Your task to perform on an android device: Do I have any events this weekend? Image 0: 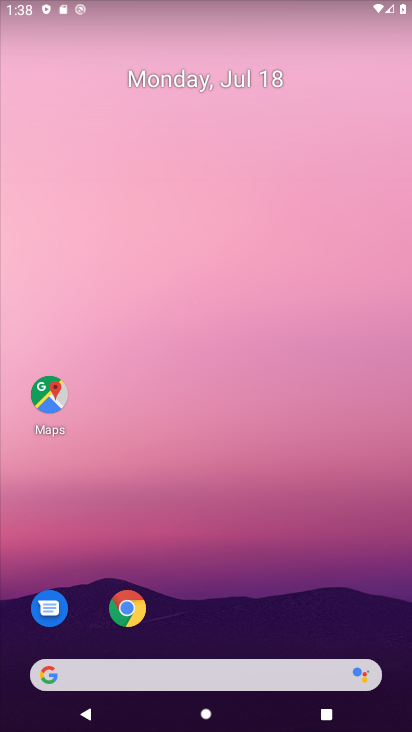
Step 0: drag from (213, 675) to (163, 104)
Your task to perform on an android device: Do I have any events this weekend? Image 1: 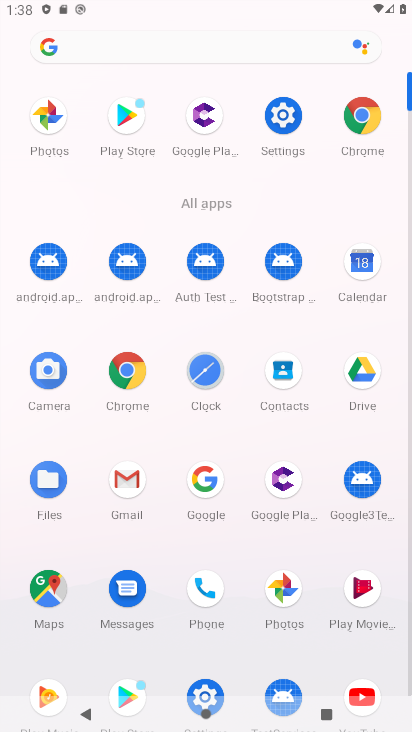
Step 1: click (347, 270)
Your task to perform on an android device: Do I have any events this weekend? Image 2: 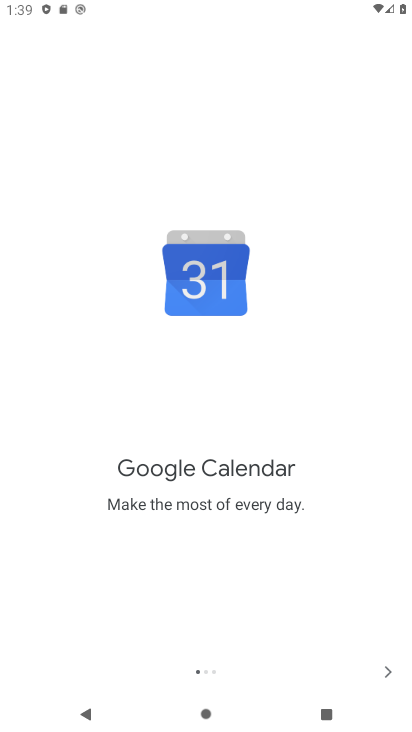
Step 2: click (384, 671)
Your task to perform on an android device: Do I have any events this weekend? Image 3: 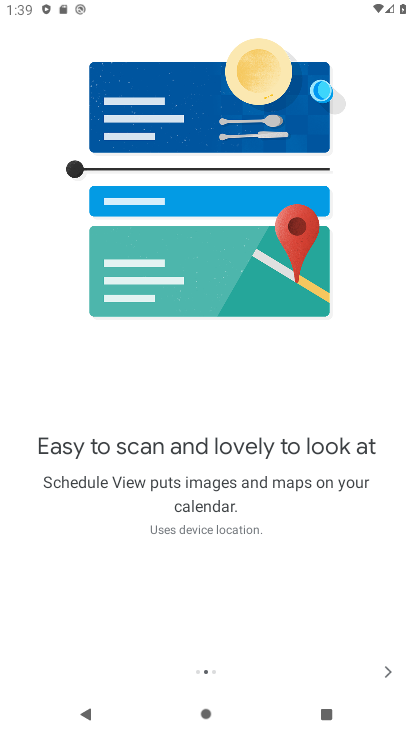
Step 3: click (384, 671)
Your task to perform on an android device: Do I have any events this weekend? Image 4: 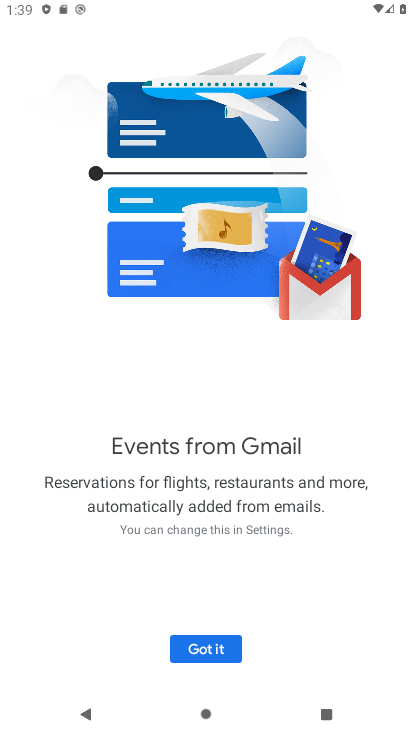
Step 4: click (224, 652)
Your task to perform on an android device: Do I have any events this weekend? Image 5: 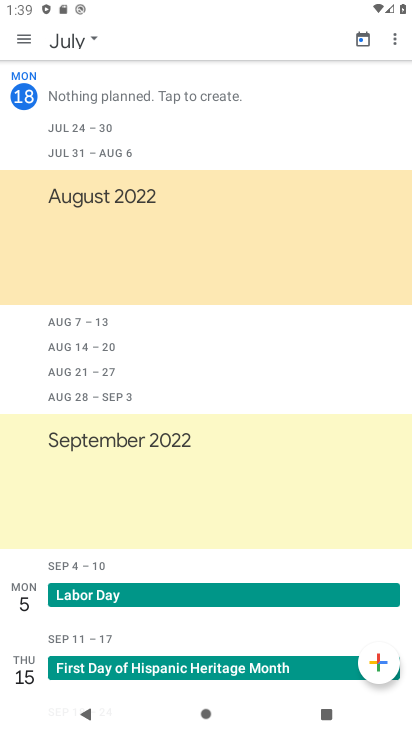
Step 5: click (29, 45)
Your task to perform on an android device: Do I have any events this weekend? Image 6: 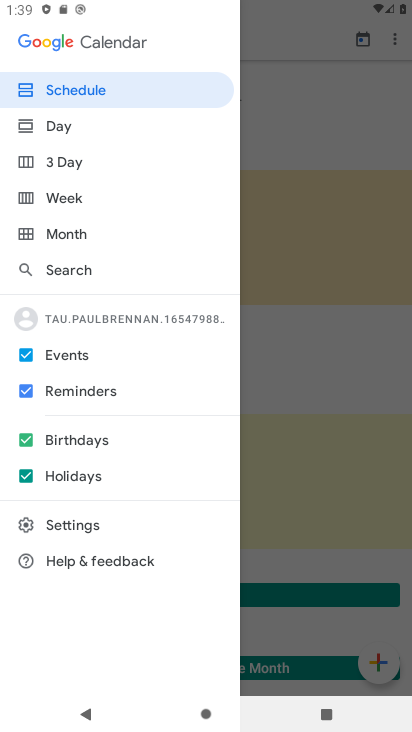
Step 6: click (66, 201)
Your task to perform on an android device: Do I have any events this weekend? Image 7: 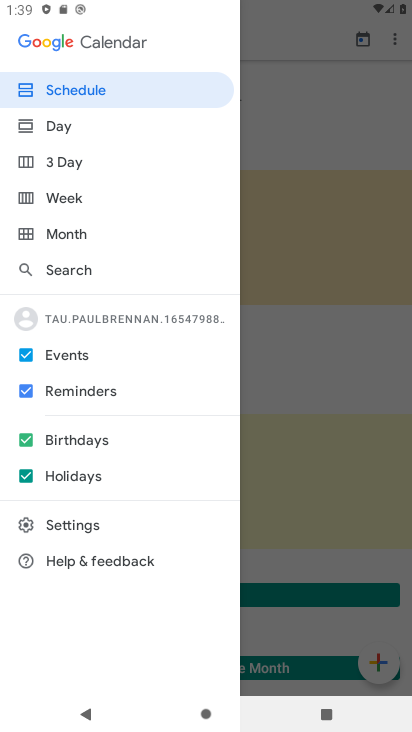
Step 7: click (59, 201)
Your task to perform on an android device: Do I have any events this weekend? Image 8: 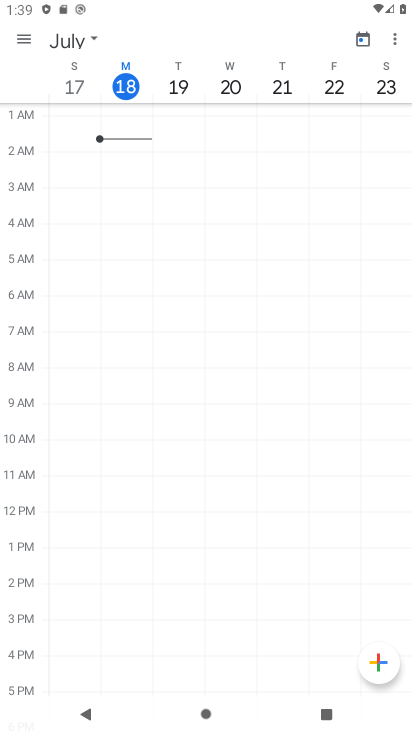
Step 8: task complete